Your task to perform on an android device: Open the calendar and show me this week's events Image 0: 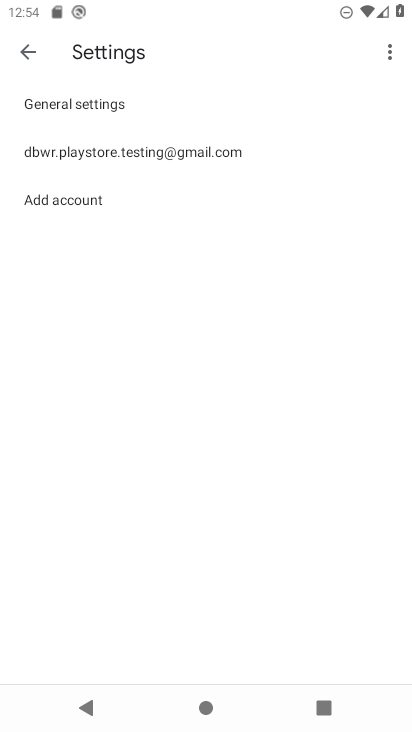
Step 0: click (203, 598)
Your task to perform on an android device: Open the calendar and show me this week's events Image 1: 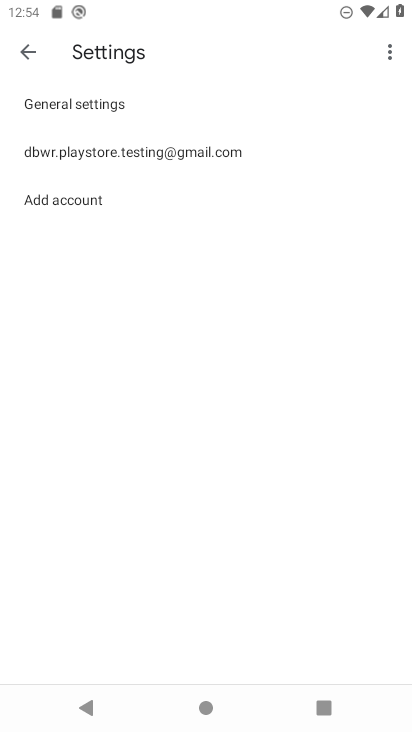
Step 1: press home button
Your task to perform on an android device: Open the calendar and show me this week's events Image 2: 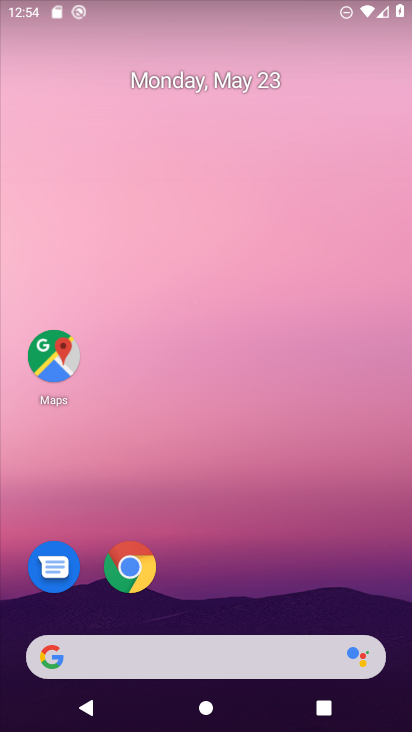
Step 2: click (231, 88)
Your task to perform on an android device: Open the calendar and show me this week's events Image 3: 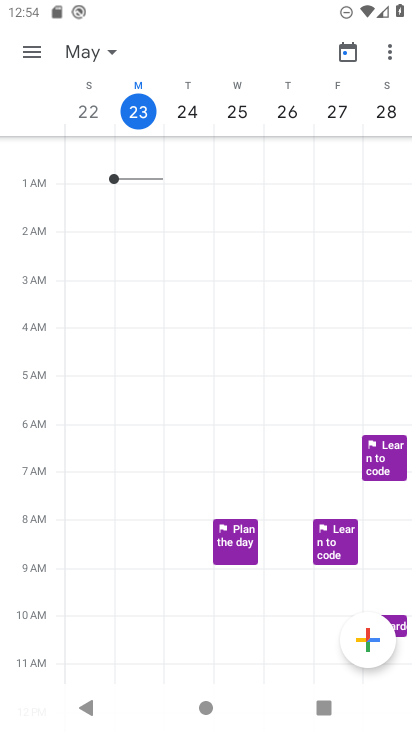
Step 3: click (70, 62)
Your task to perform on an android device: Open the calendar and show me this week's events Image 4: 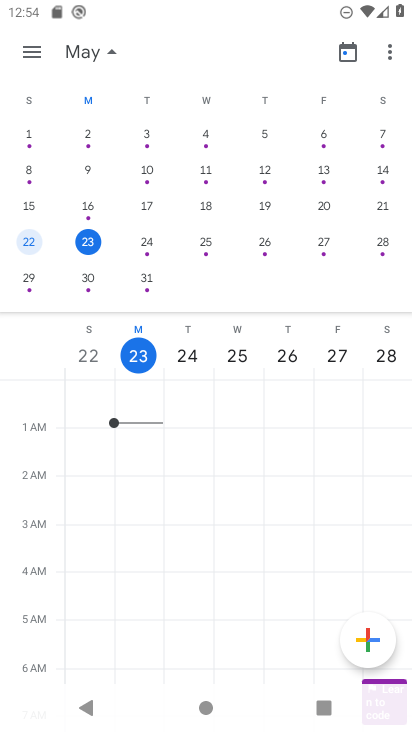
Step 4: click (213, 248)
Your task to perform on an android device: Open the calendar and show me this week's events Image 5: 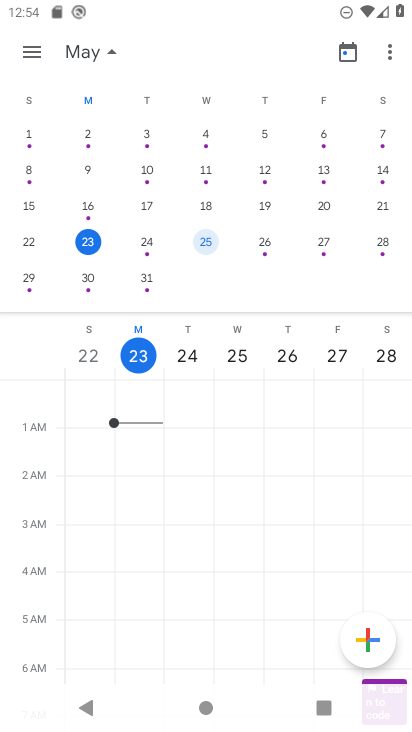
Step 5: click (235, 358)
Your task to perform on an android device: Open the calendar and show me this week's events Image 6: 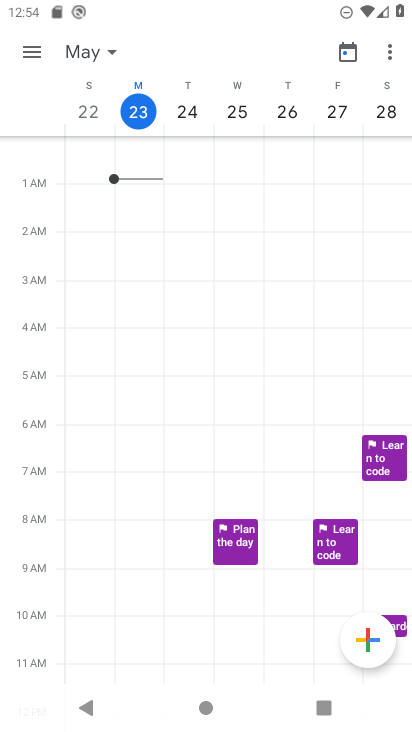
Step 6: task complete